Your task to perform on an android device: turn pop-ups on in chrome Image 0: 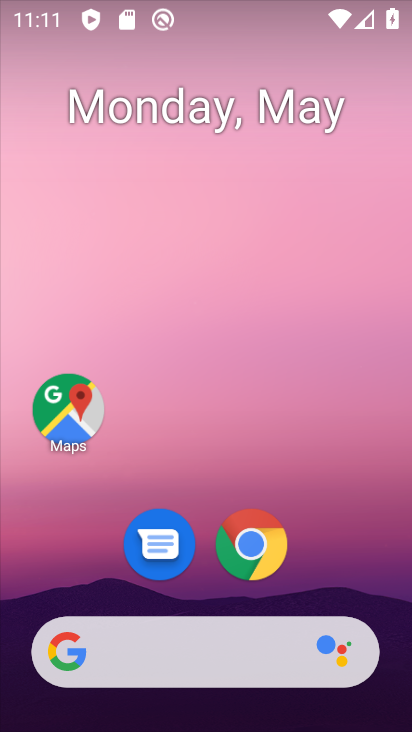
Step 0: drag from (357, 566) to (352, 152)
Your task to perform on an android device: turn pop-ups on in chrome Image 1: 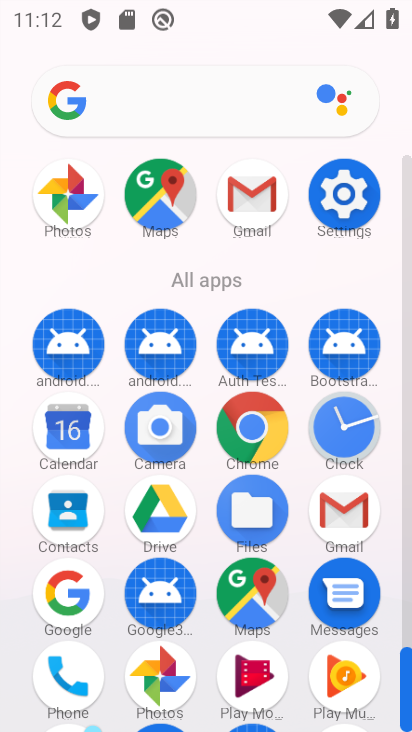
Step 1: click (266, 436)
Your task to perform on an android device: turn pop-ups on in chrome Image 2: 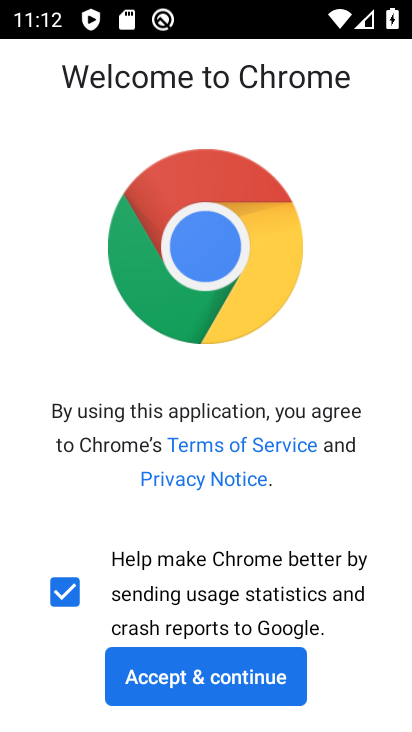
Step 2: click (240, 669)
Your task to perform on an android device: turn pop-ups on in chrome Image 3: 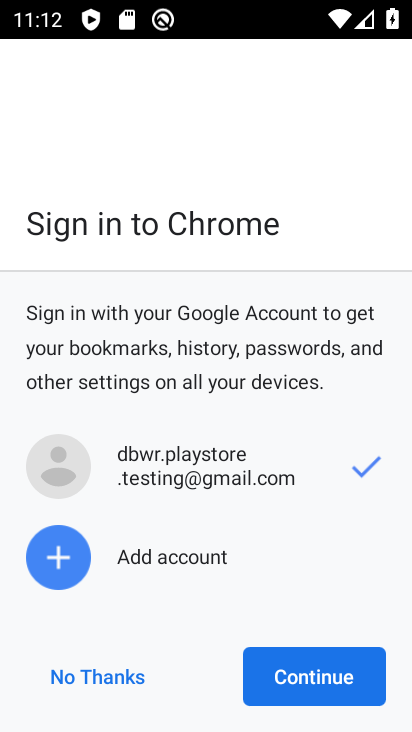
Step 3: click (307, 676)
Your task to perform on an android device: turn pop-ups on in chrome Image 4: 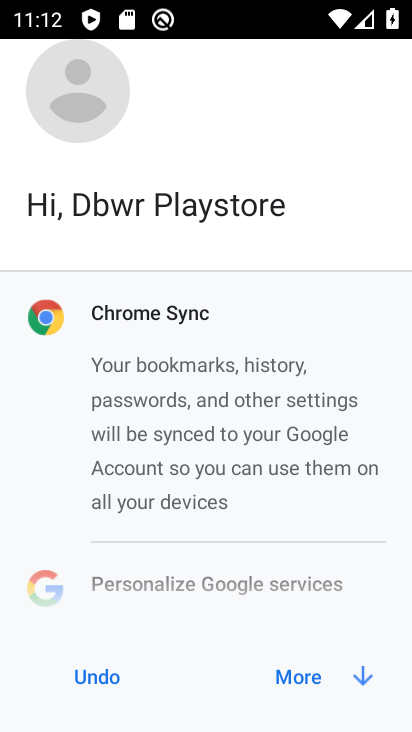
Step 4: click (307, 673)
Your task to perform on an android device: turn pop-ups on in chrome Image 5: 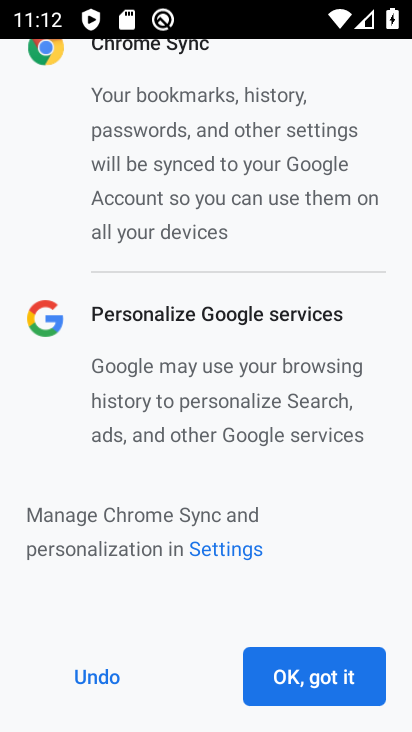
Step 5: click (303, 666)
Your task to perform on an android device: turn pop-ups on in chrome Image 6: 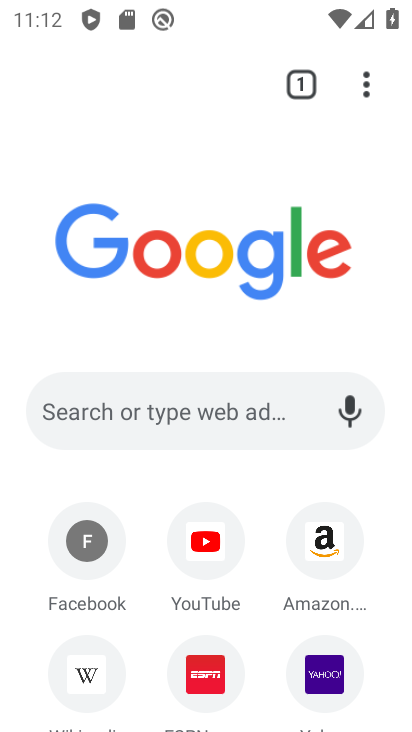
Step 6: drag from (377, 96) to (203, 607)
Your task to perform on an android device: turn pop-ups on in chrome Image 7: 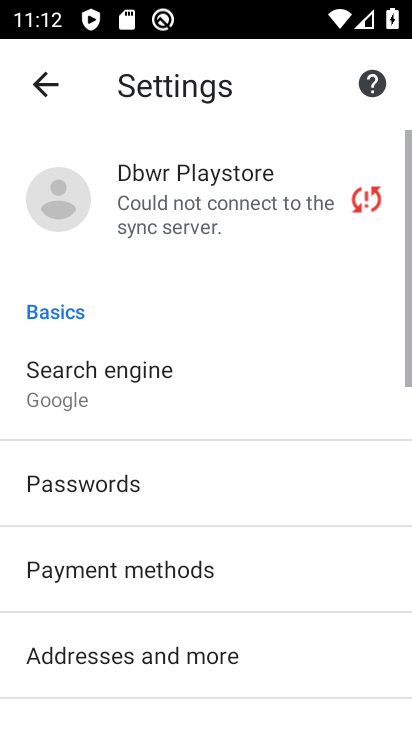
Step 7: drag from (285, 639) to (263, 315)
Your task to perform on an android device: turn pop-ups on in chrome Image 8: 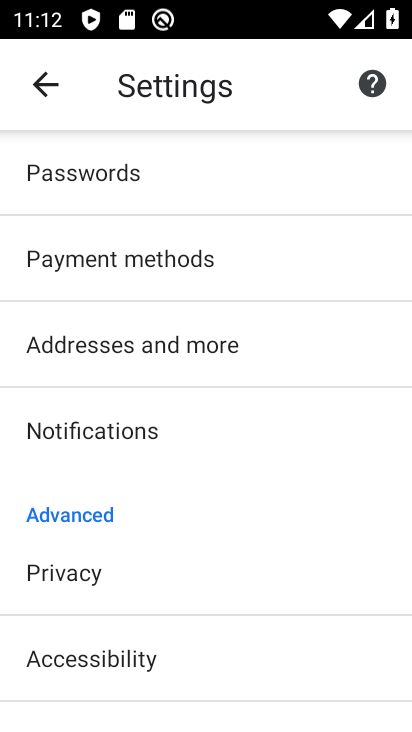
Step 8: drag from (312, 631) to (325, 285)
Your task to perform on an android device: turn pop-ups on in chrome Image 9: 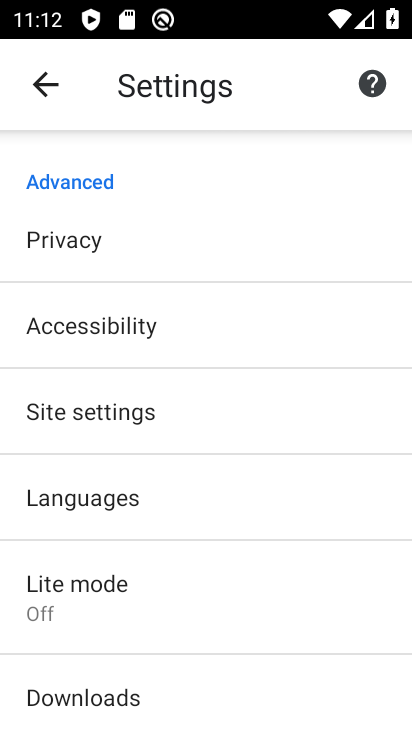
Step 9: drag from (298, 627) to (296, 300)
Your task to perform on an android device: turn pop-ups on in chrome Image 10: 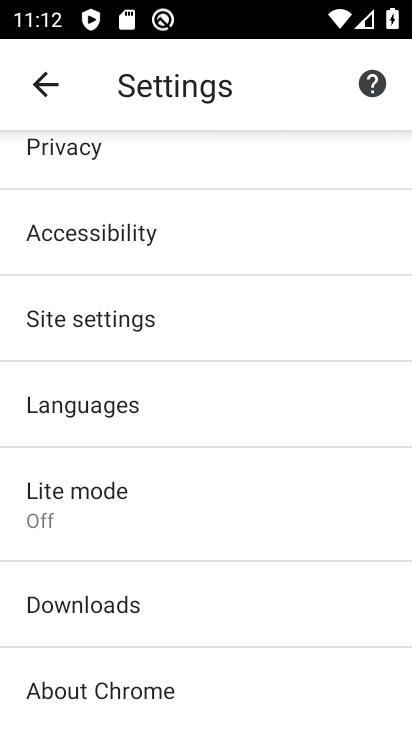
Step 10: click (166, 334)
Your task to perform on an android device: turn pop-ups on in chrome Image 11: 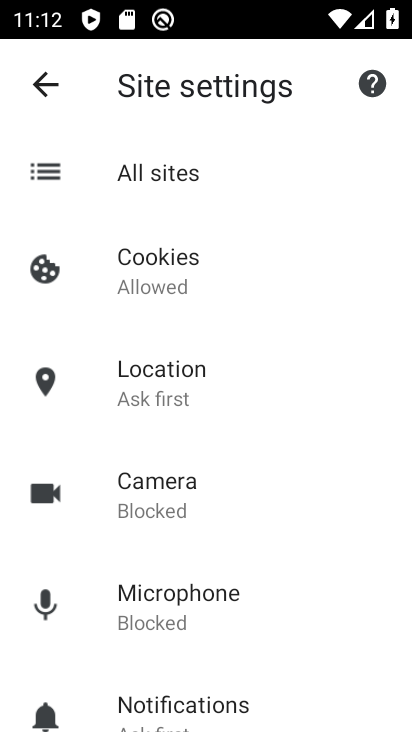
Step 11: drag from (281, 685) to (326, 364)
Your task to perform on an android device: turn pop-ups on in chrome Image 12: 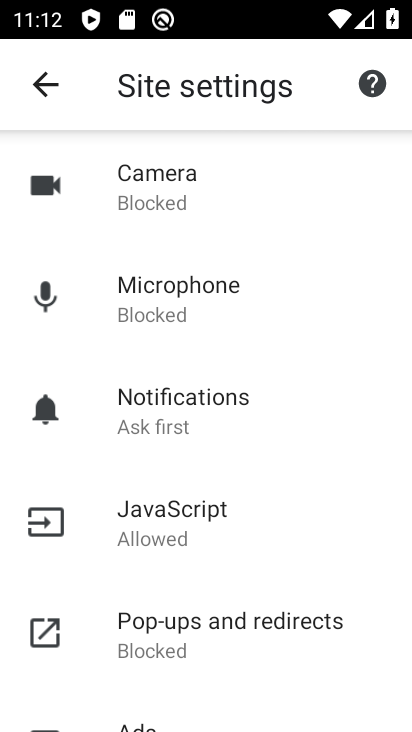
Step 12: click (303, 619)
Your task to perform on an android device: turn pop-ups on in chrome Image 13: 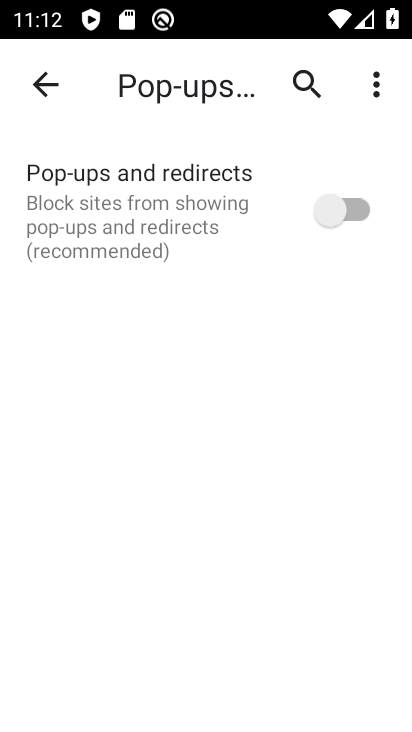
Step 13: click (366, 209)
Your task to perform on an android device: turn pop-ups on in chrome Image 14: 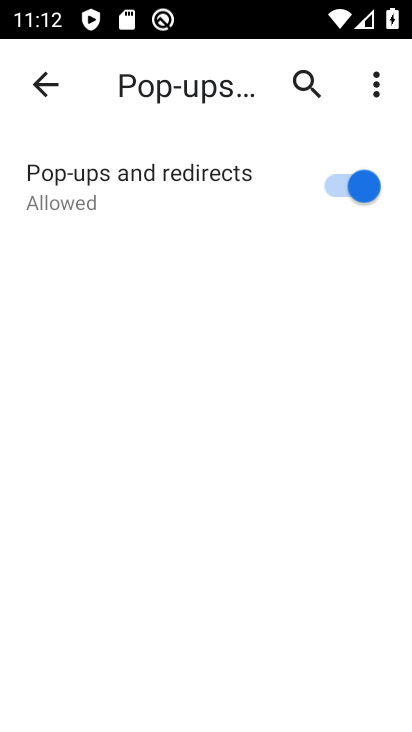
Step 14: task complete